Your task to perform on an android device: turn off notifications in google photos Image 0: 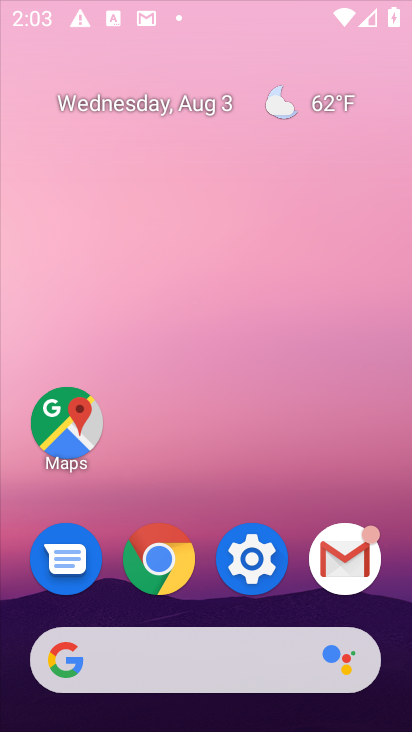
Step 0: press home button
Your task to perform on an android device: turn off notifications in google photos Image 1: 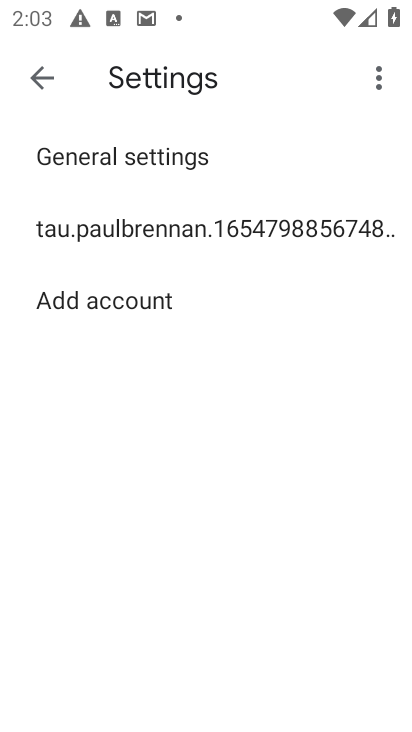
Step 1: click (242, 563)
Your task to perform on an android device: turn off notifications in google photos Image 2: 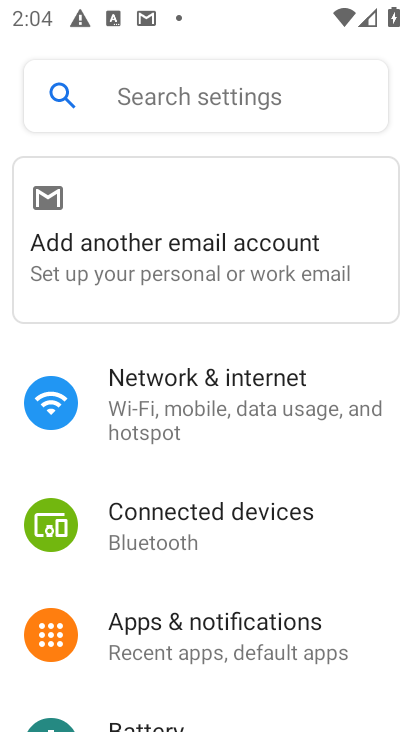
Step 2: press home button
Your task to perform on an android device: turn off notifications in google photos Image 3: 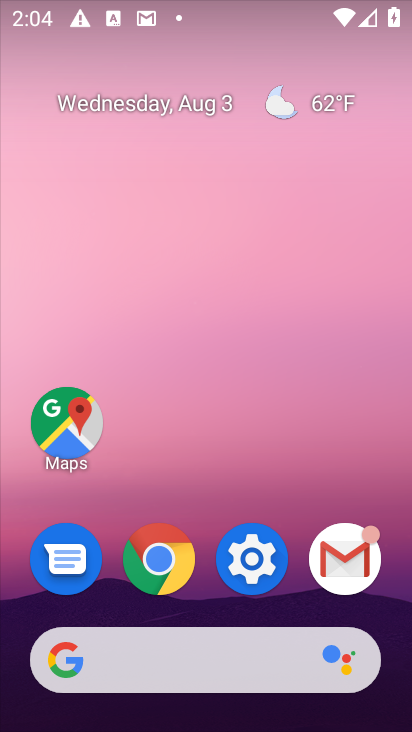
Step 3: drag from (274, 665) to (243, 229)
Your task to perform on an android device: turn off notifications in google photos Image 4: 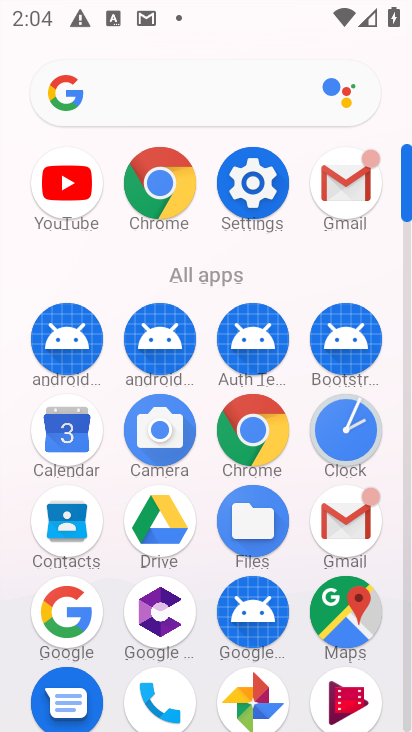
Step 4: click (273, 692)
Your task to perform on an android device: turn off notifications in google photos Image 5: 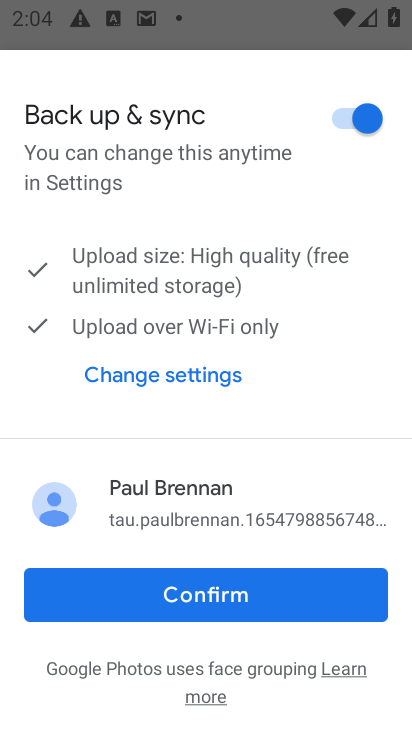
Step 5: click (269, 588)
Your task to perform on an android device: turn off notifications in google photos Image 6: 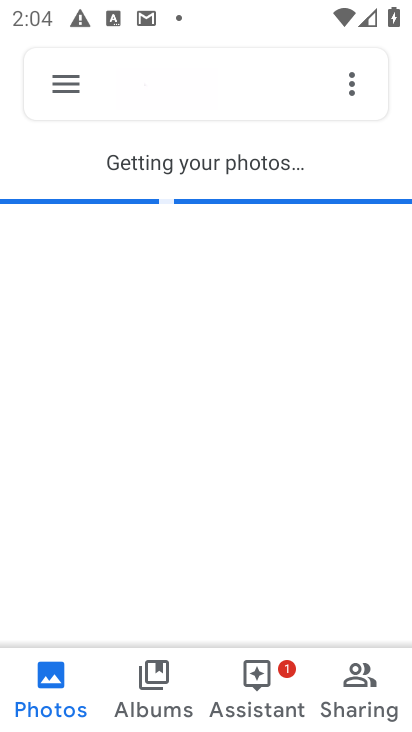
Step 6: click (81, 83)
Your task to perform on an android device: turn off notifications in google photos Image 7: 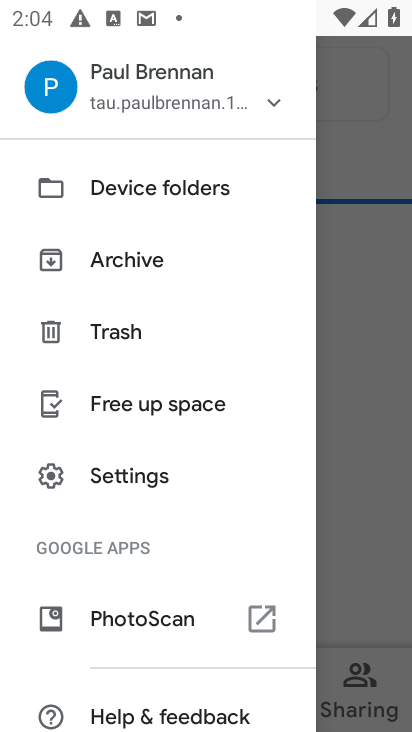
Step 7: click (104, 469)
Your task to perform on an android device: turn off notifications in google photos Image 8: 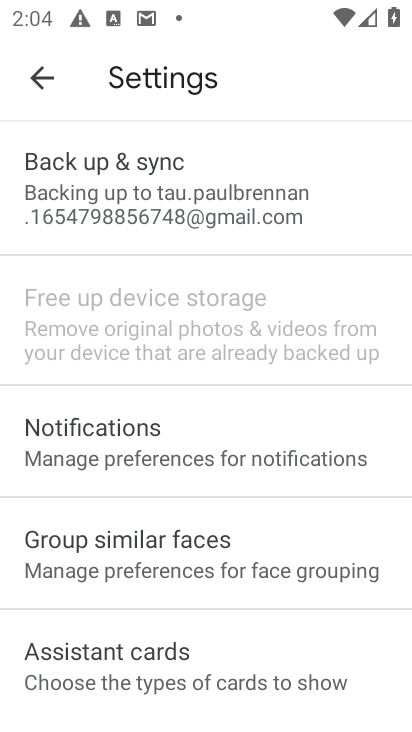
Step 8: click (116, 452)
Your task to perform on an android device: turn off notifications in google photos Image 9: 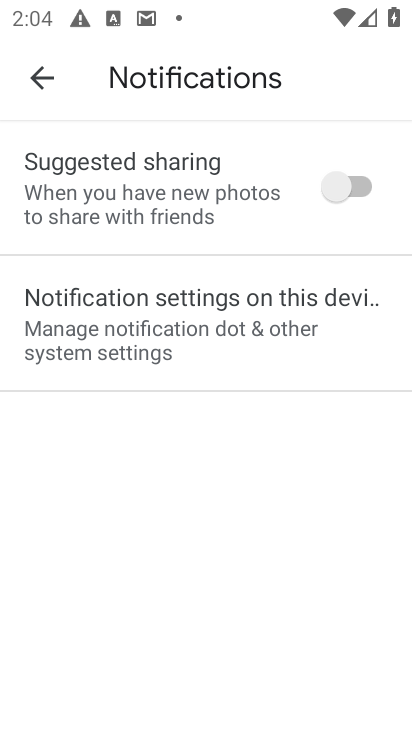
Step 9: click (228, 309)
Your task to perform on an android device: turn off notifications in google photos Image 10: 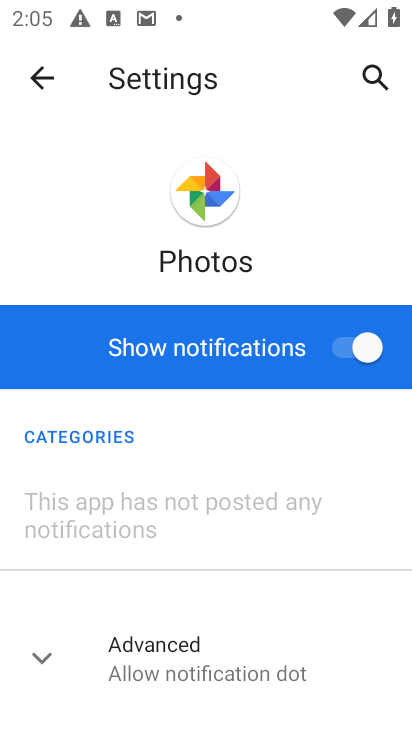
Step 10: click (340, 357)
Your task to perform on an android device: turn off notifications in google photos Image 11: 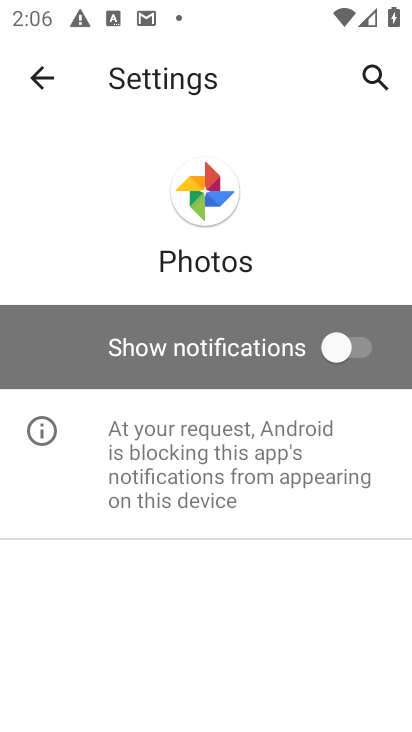
Step 11: task complete